Your task to perform on an android device: open app "PlayWell" Image 0: 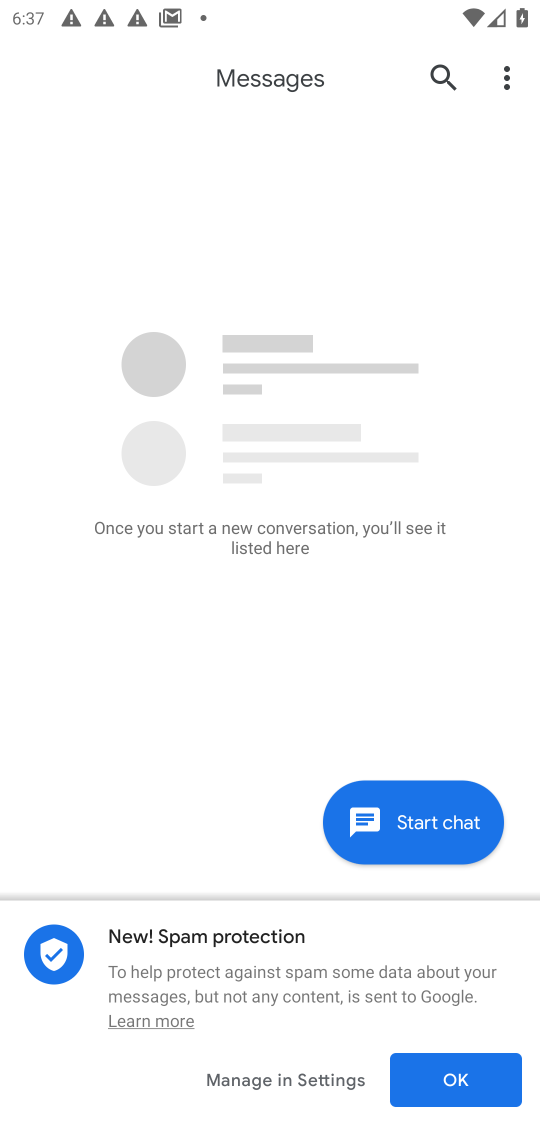
Step 0: press home button
Your task to perform on an android device: open app "PlayWell" Image 1: 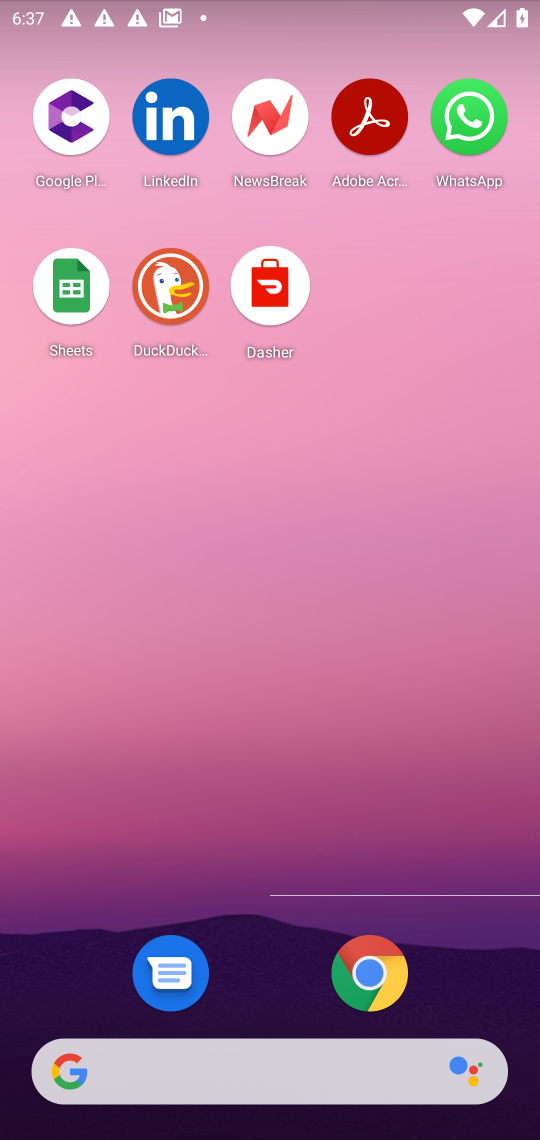
Step 1: drag from (265, 993) to (407, 140)
Your task to perform on an android device: open app "PlayWell" Image 2: 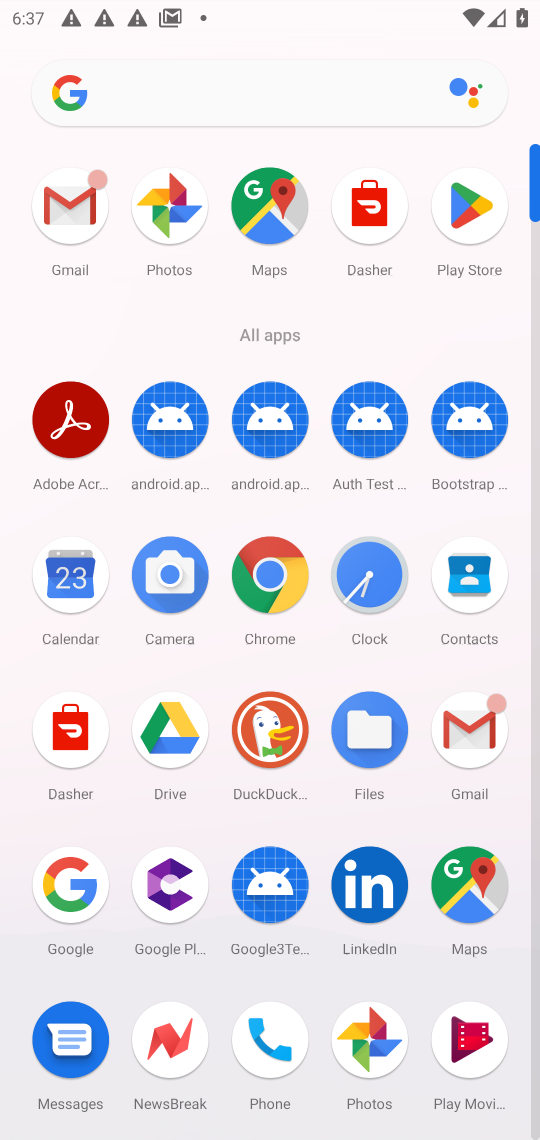
Step 2: click (469, 204)
Your task to perform on an android device: open app "PlayWell" Image 3: 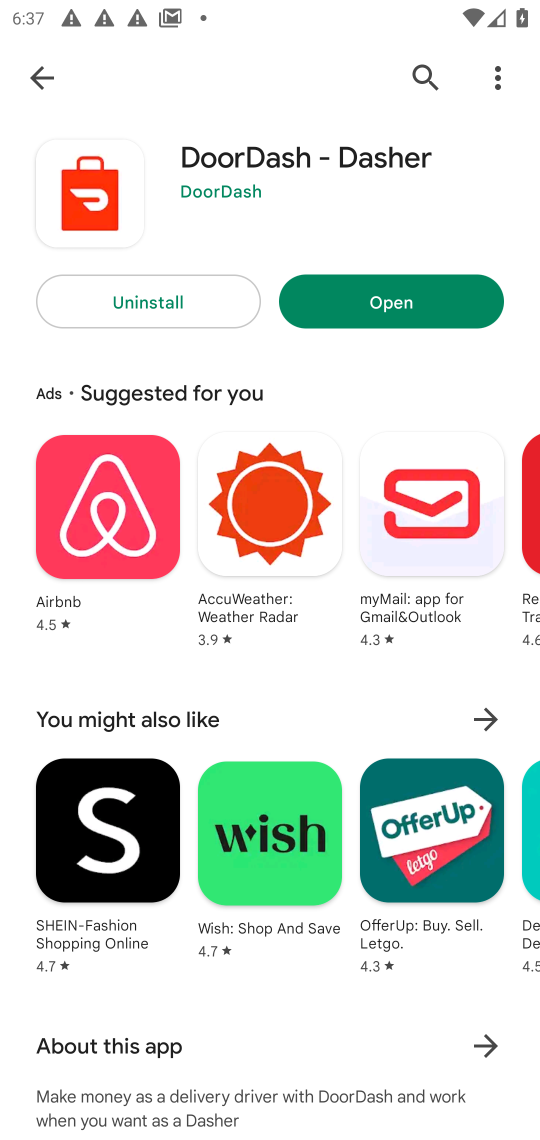
Step 3: click (428, 56)
Your task to perform on an android device: open app "PlayWell" Image 4: 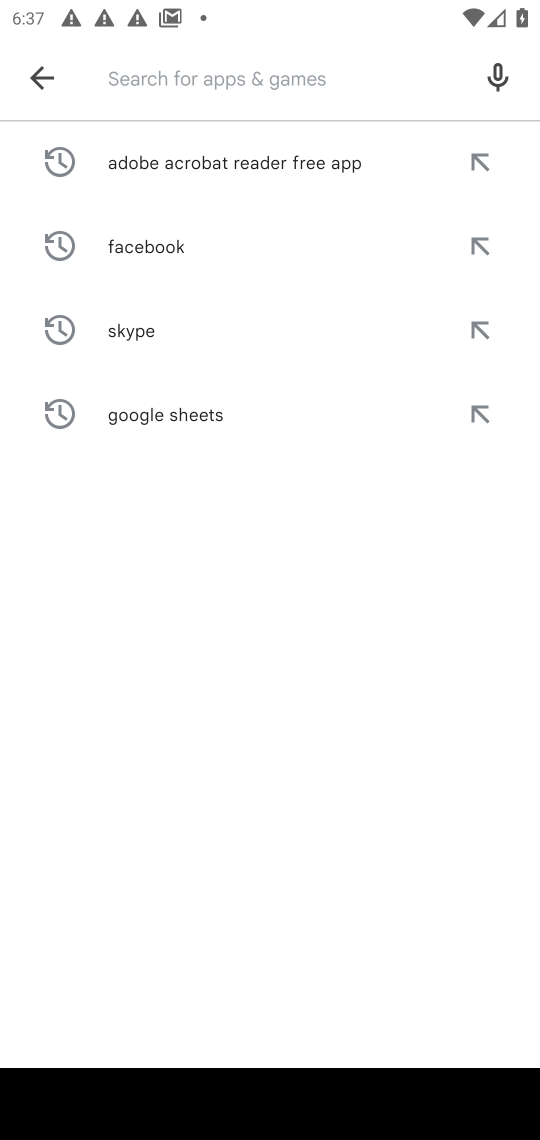
Step 4: click (179, 74)
Your task to perform on an android device: open app "PlayWell" Image 5: 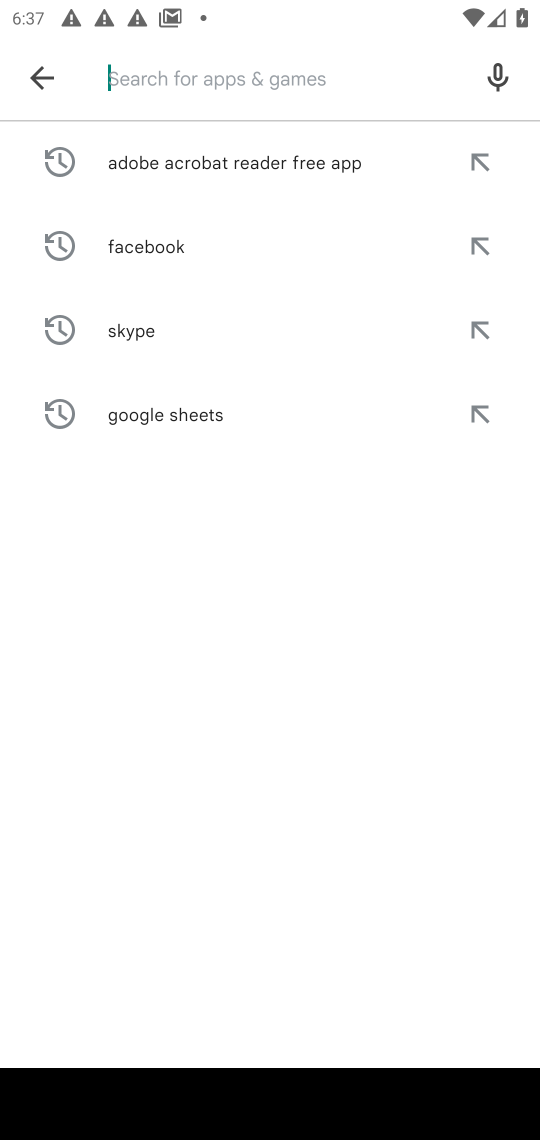
Step 5: type "PlayWell"
Your task to perform on an android device: open app "PlayWell" Image 6: 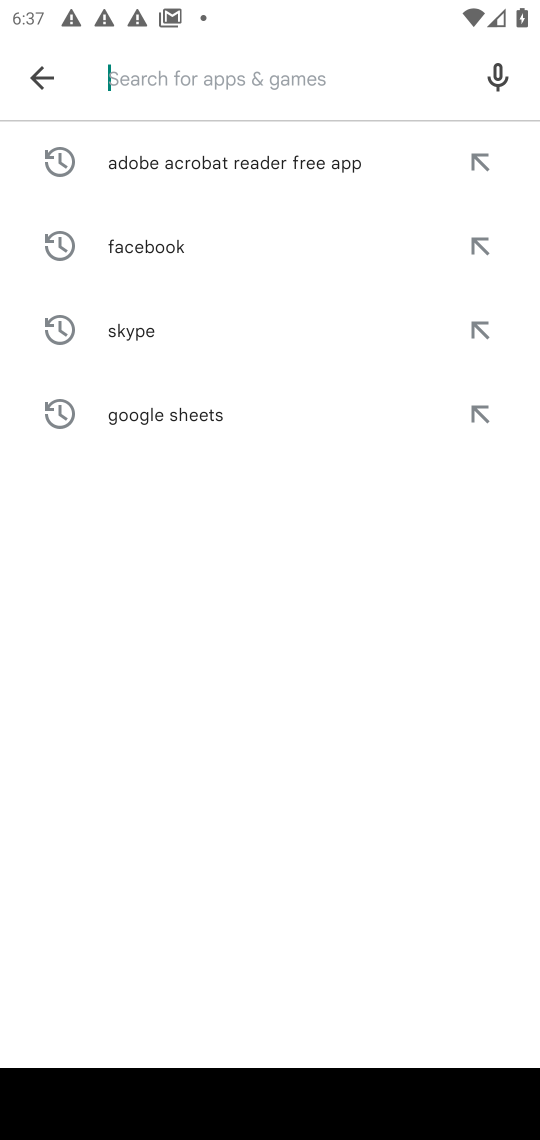
Step 6: click (392, 654)
Your task to perform on an android device: open app "PlayWell" Image 7: 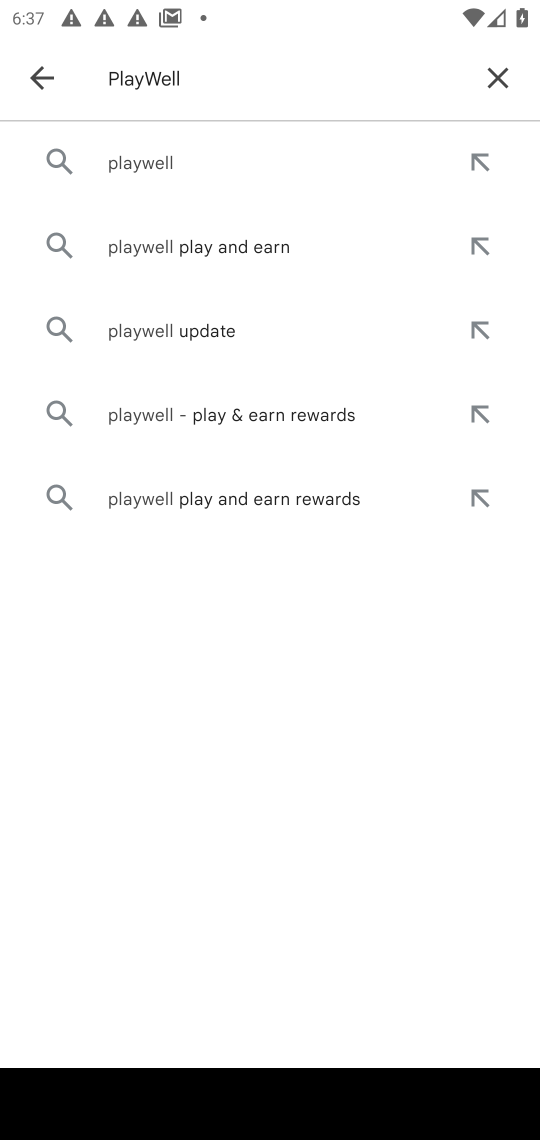
Step 7: click (168, 164)
Your task to perform on an android device: open app "PlayWell" Image 8: 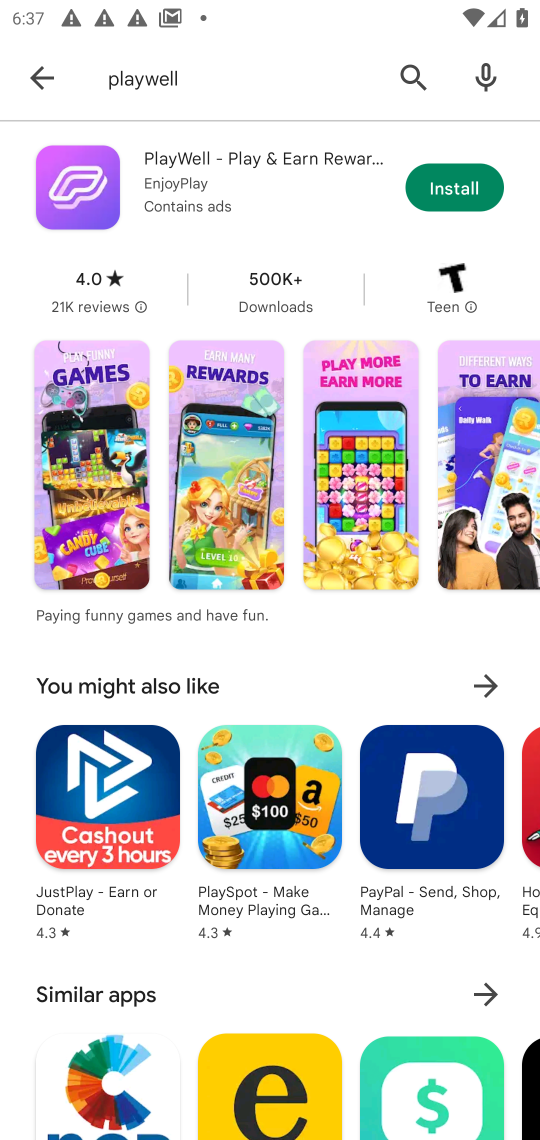
Step 8: click (223, 188)
Your task to perform on an android device: open app "PlayWell" Image 9: 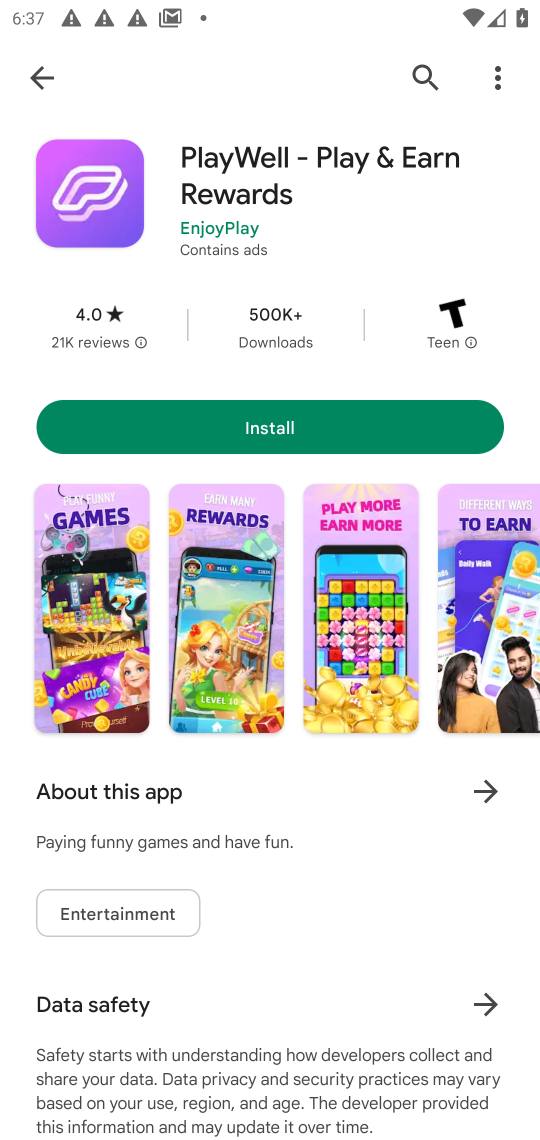
Step 9: task complete